Your task to perform on an android device: Open Yahoo.com Image 0: 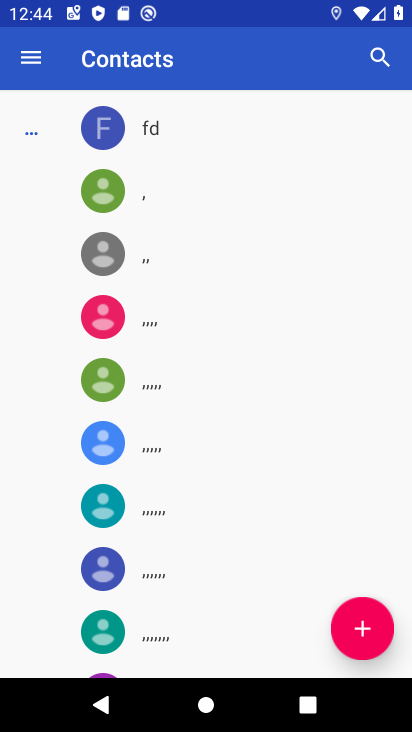
Step 0: press home button
Your task to perform on an android device: Open Yahoo.com Image 1: 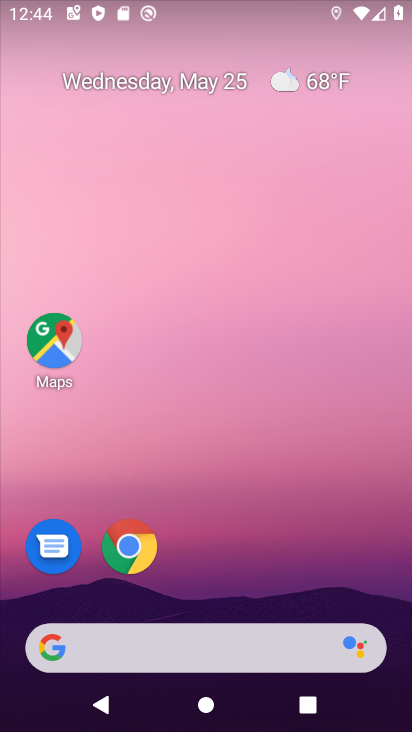
Step 1: click (201, 641)
Your task to perform on an android device: Open Yahoo.com Image 2: 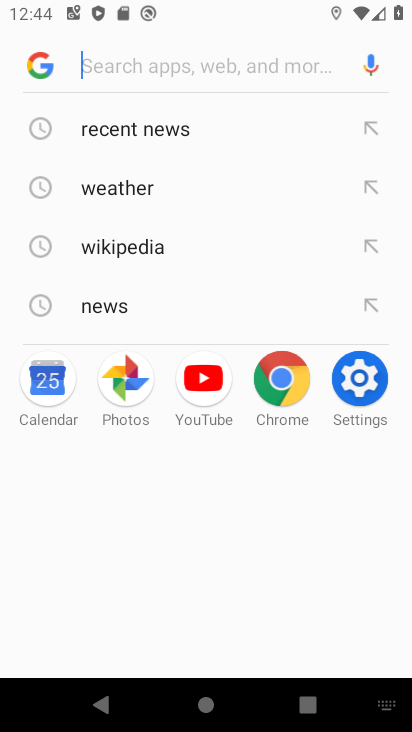
Step 2: type "yahoo.com"
Your task to perform on an android device: Open Yahoo.com Image 3: 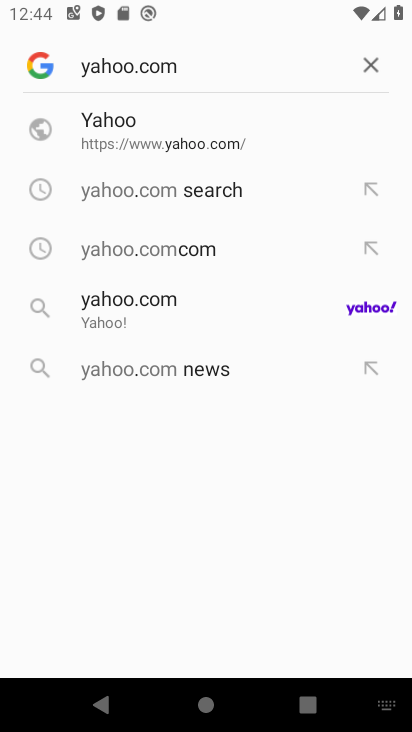
Step 3: click (195, 310)
Your task to perform on an android device: Open Yahoo.com Image 4: 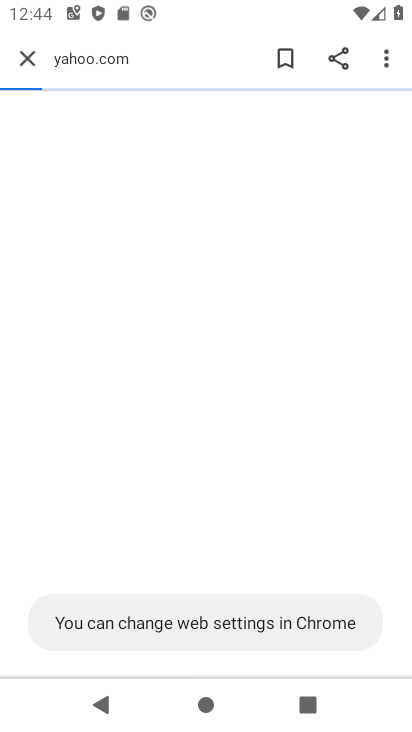
Step 4: task complete